Your task to perform on an android device: Open settings Image 0: 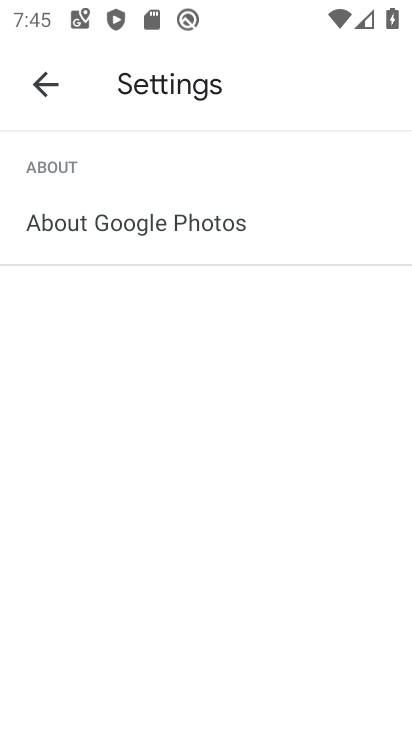
Step 0: press home button
Your task to perform on an android device: Open settings Image 1: 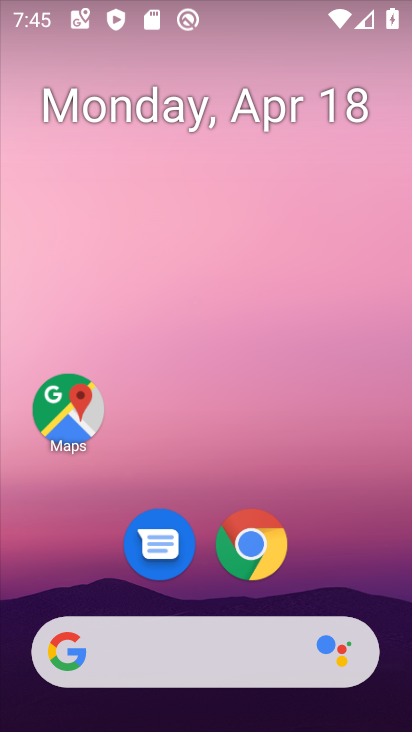
Step 1: drag from (364, 598) to (386, 61)
Your task to perform on an android device: Open settings Image 2: 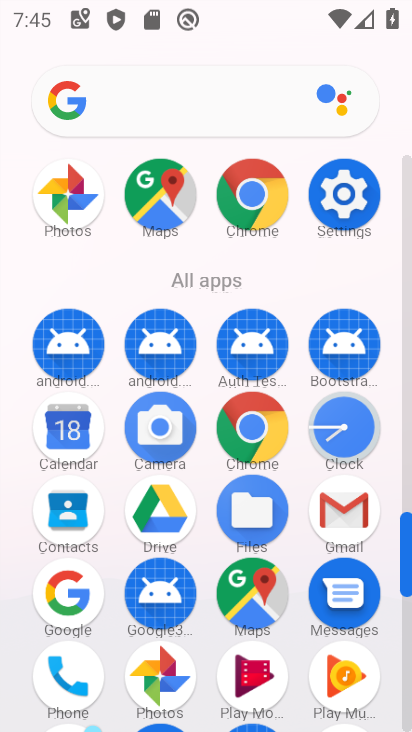
Step 2: click (341, 198)
Your task to perform on an android device: Open settings Image 3: 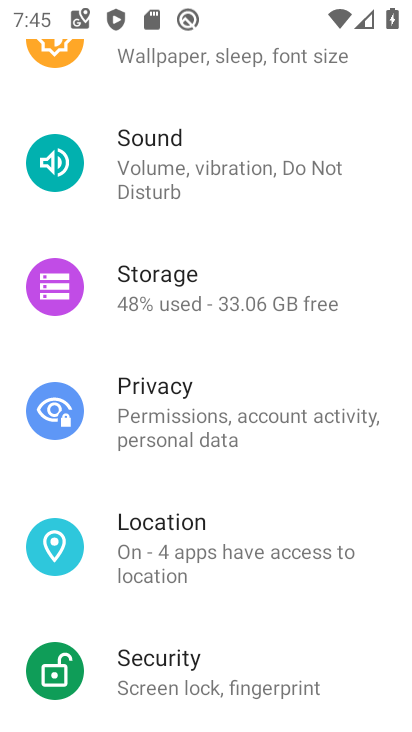
Step 3: task complete